Your task to perform on an android device: turn off improve location accuracy Image 0: 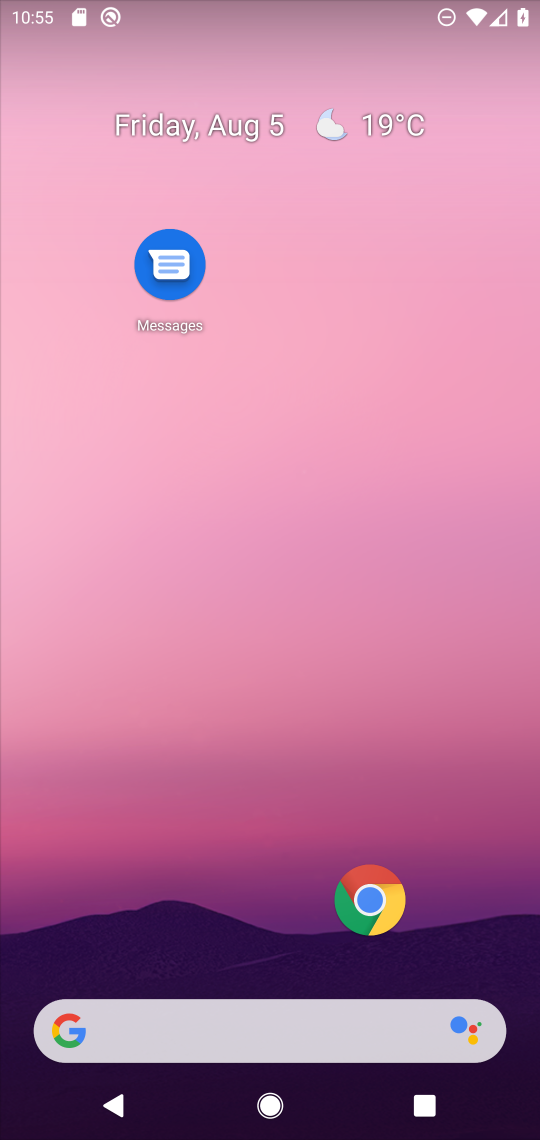
Step 0: press home button
Your task to perform on an android device: turn off improve location accuracy Image 1: 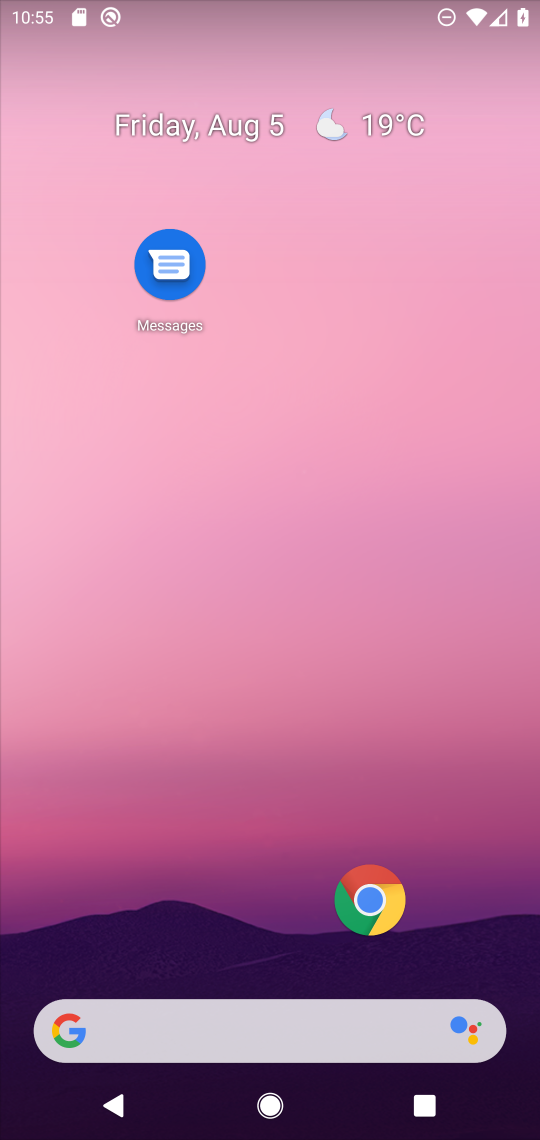
Step 1: press home button
Your task to perform on an android device: turn off improve location accuracy Image 2: 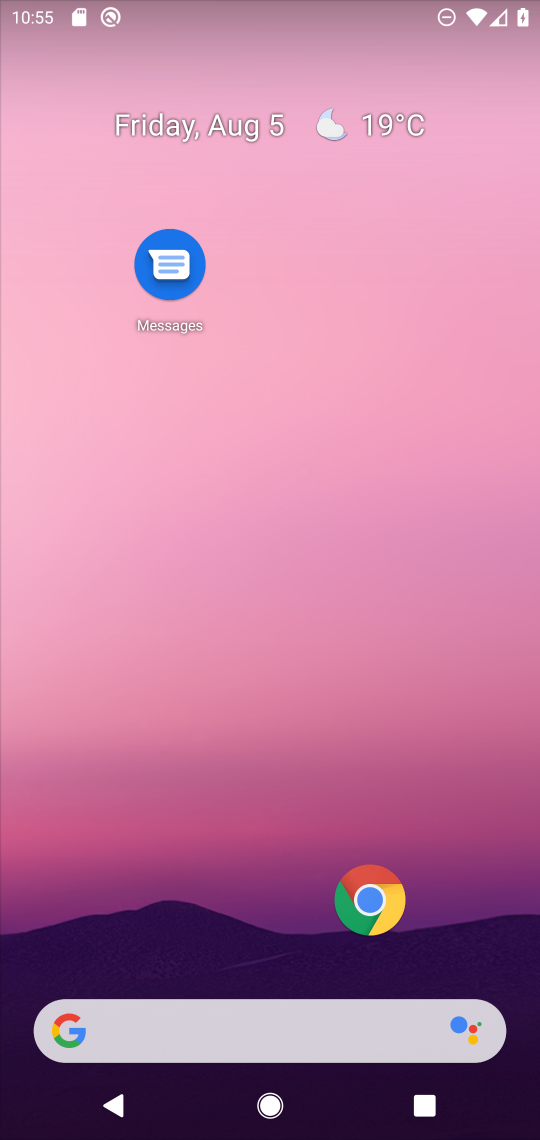
Step 2: drag from (279, 736) to (285, 0)
Your task to perform on an android device: turn off improve location accuracy Image 3: 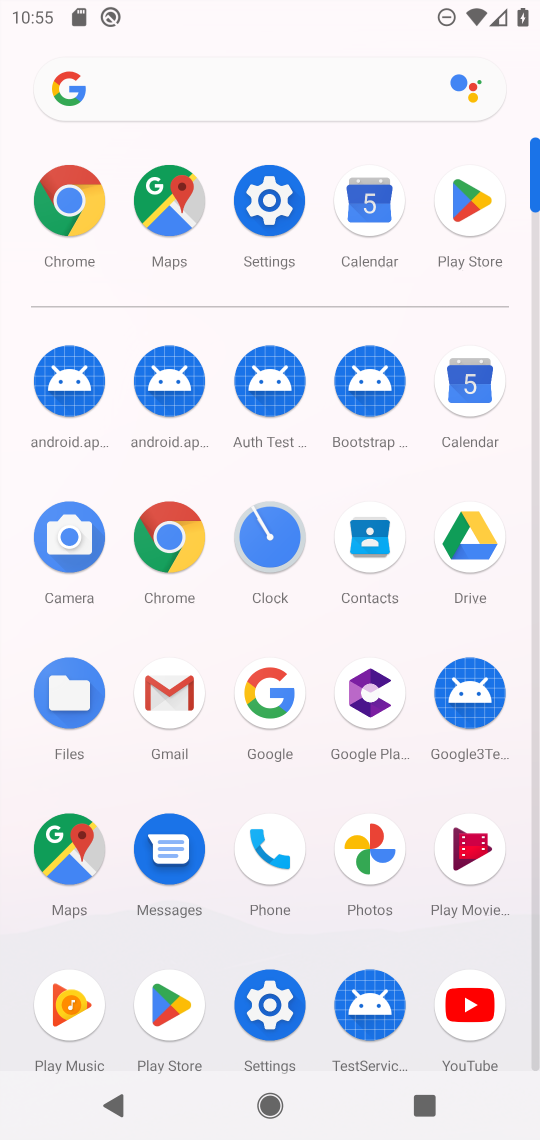
Step 3: click (273, 220)
Your task to perform on an android device: turn off improve location accuracy Image 4: 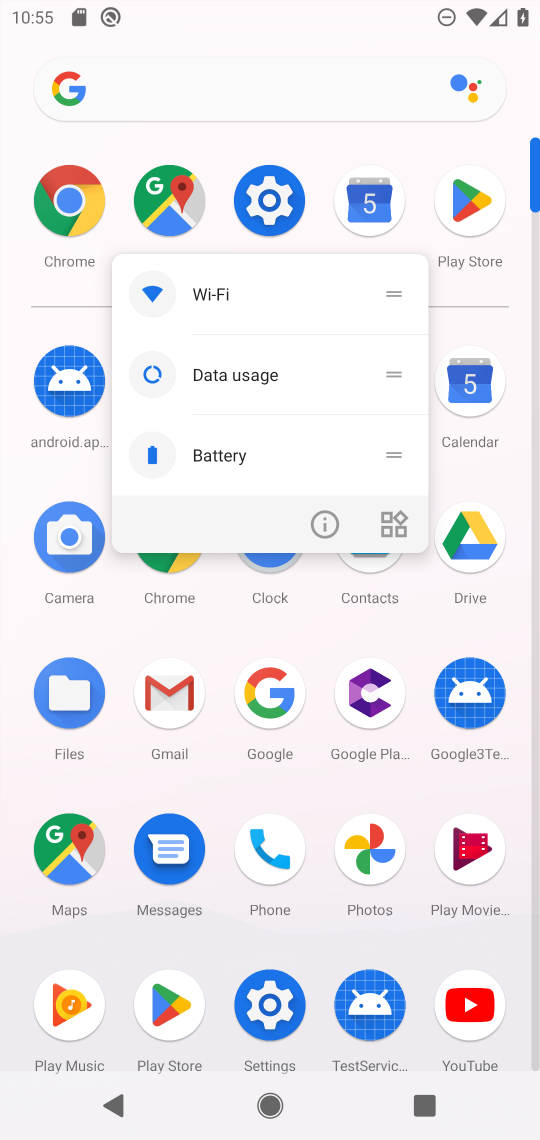
Step 4: click (273, 220)
Your task to perform on an android device: turn off improve location accuracy Image 5: 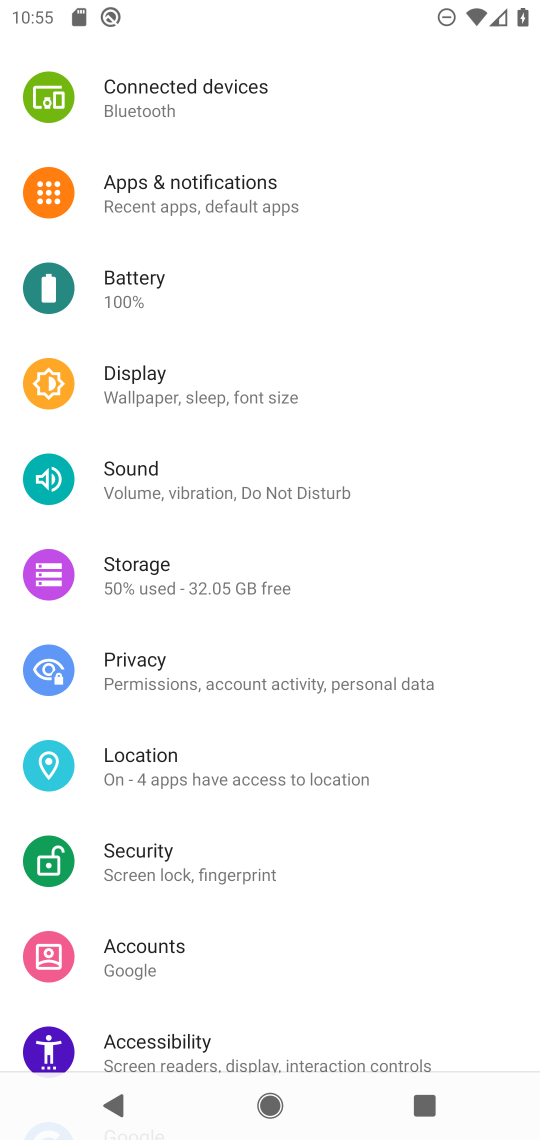
Step 5: drag from (191, 896) to (209, 1131)
Your task to perform on an android device: turn off improve location accuracy Image 6: 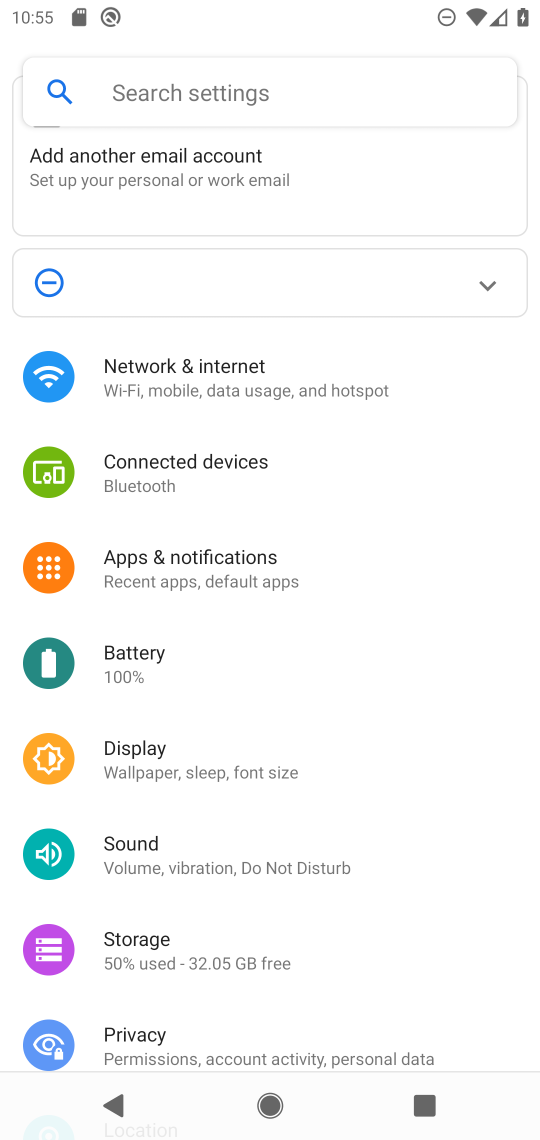
Step 6: drag from (188, 1056) to (158, 244)
Your task to perform on an android device: turn off improve location accuracy Image 7: 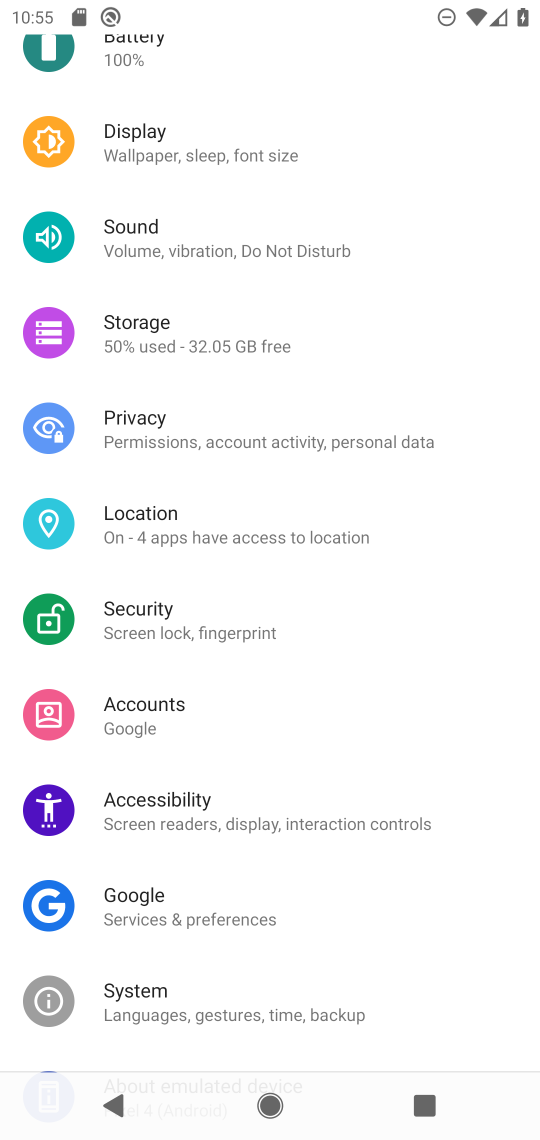
Step 7: click (151, 551)
Your task to perform on an android device: turn off improve location accuracy Image 8: 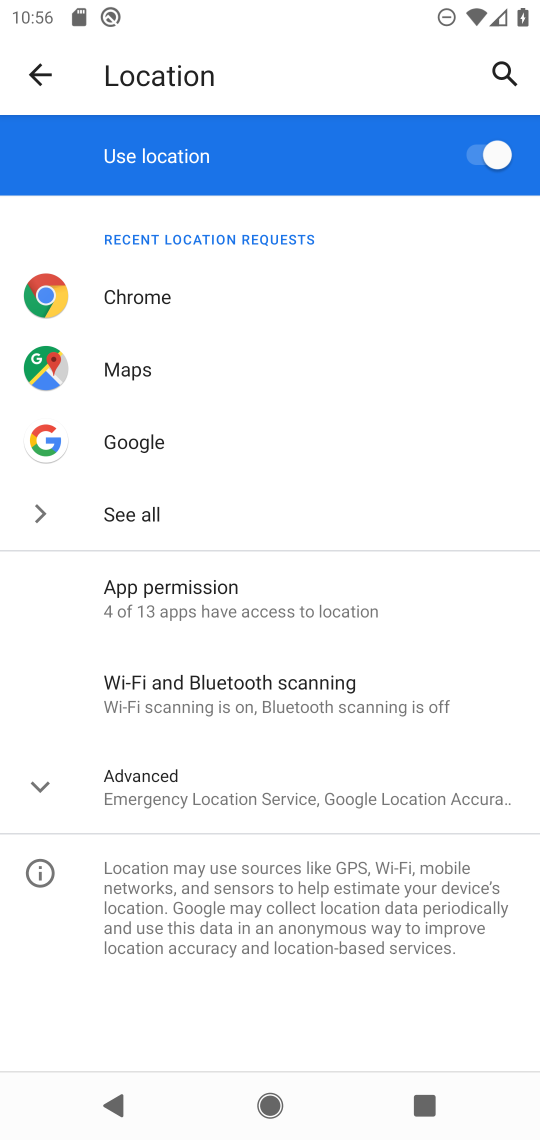
Step 8: click (160, 774)
Your task to perform on an android device: turn off improve location accuracy Image 9: 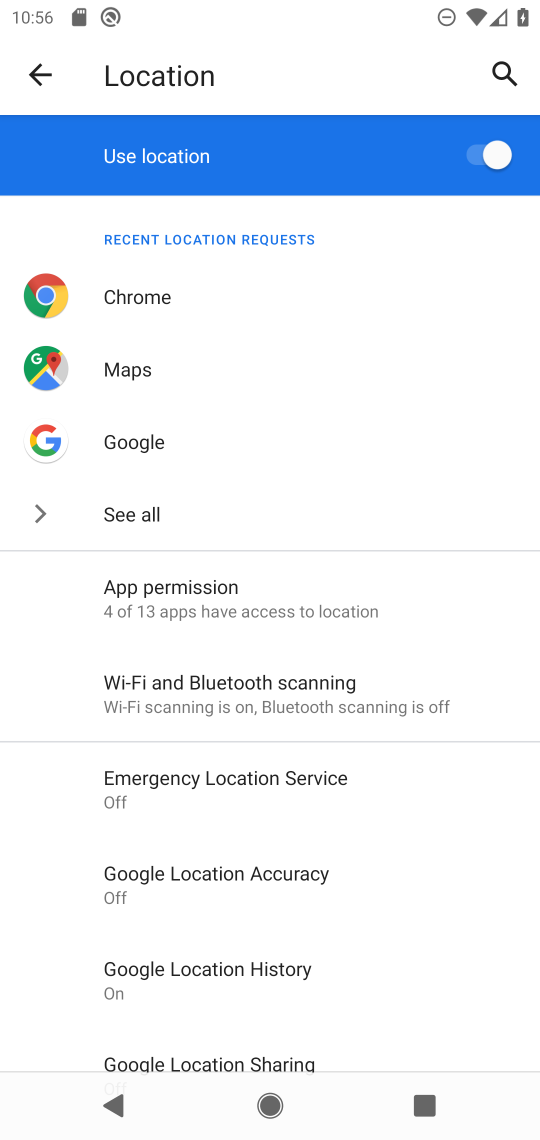
Step 9: click (194, 869)
Your task to perform on an android device: turn off improve location accuracy Image 10: 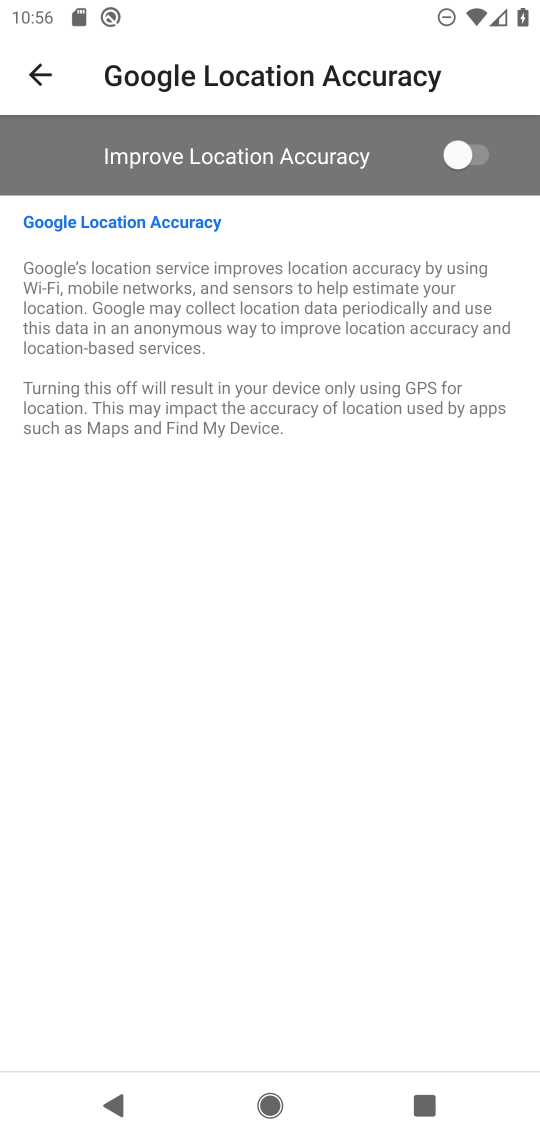
Step 10: task complete